Your task to perform on an android device: turn off picture-in-picture Image 0: 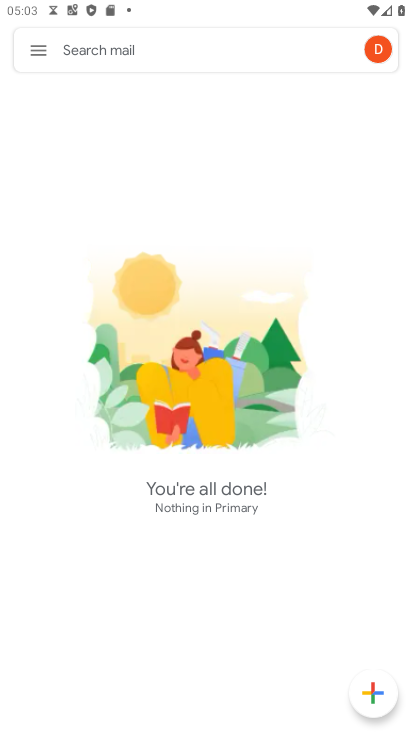
Step 0: press home button
Your task to perform on an android device: turn off picture-in-picture Image 1: 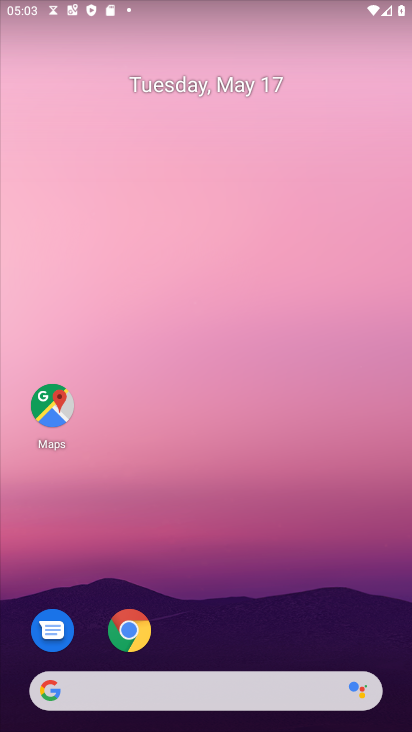
Step 1: click (113, 638)
Your task to perform on an android device: turn off picture-in-picture Image 2: 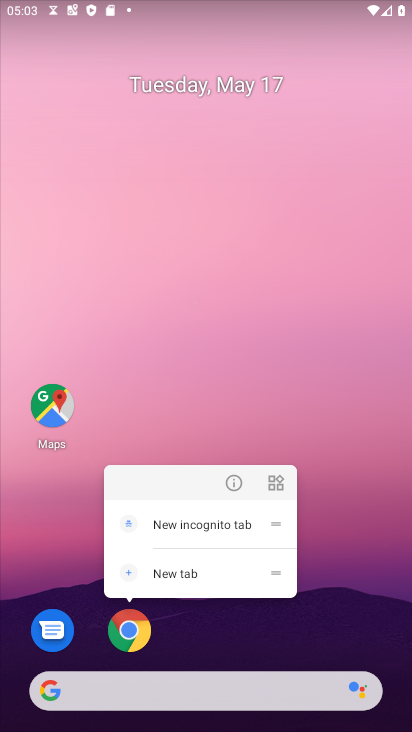
Step 2: click (238, 480)
Your task to perform on an android device: turn off picture-in-picture Image 3: 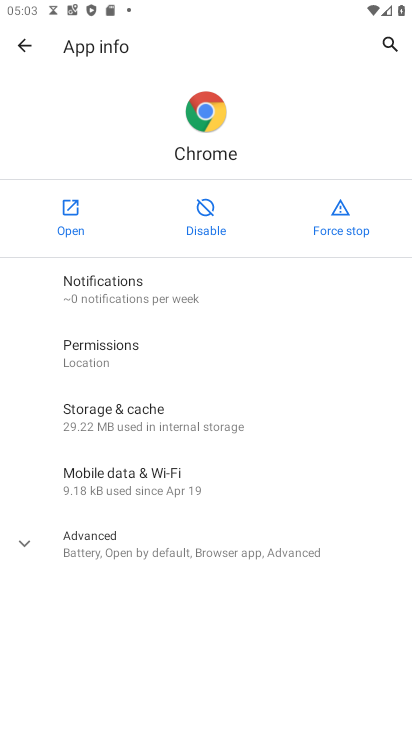
Step 3: click (180, 556)
Your task to perform on an android device: turn off picture-in-picture Image 4: 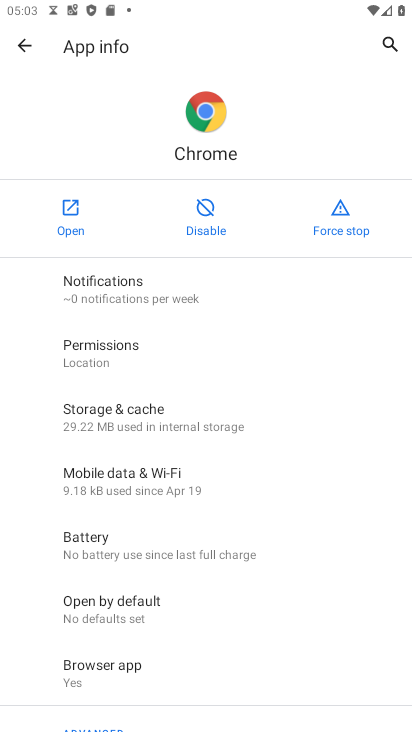
Step 4: drag from (193, 671) to (140, 531)
Your task to perform on an android device: turn off picture-in-picture Image 5: 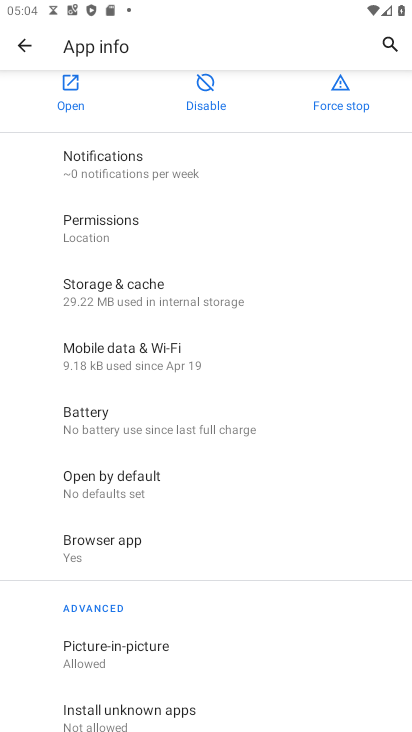
Step 5: click (89, 642)
Your task to perform on an android device: turn off picture-in-picture Image 6: 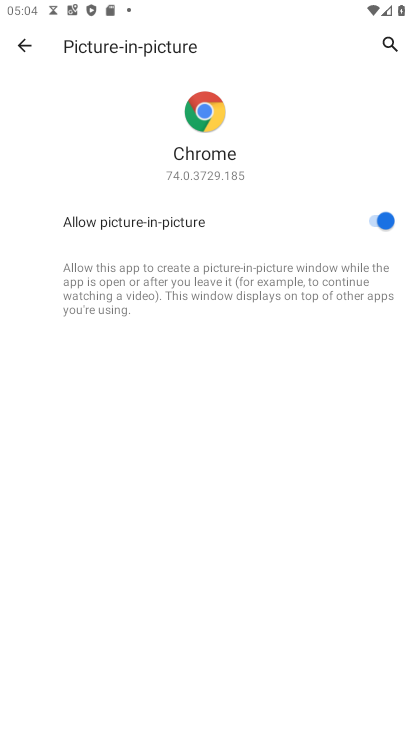
Step 6: click (389, 217)
Your task to perform on an android device: turn off picture-in-picture Image 7: 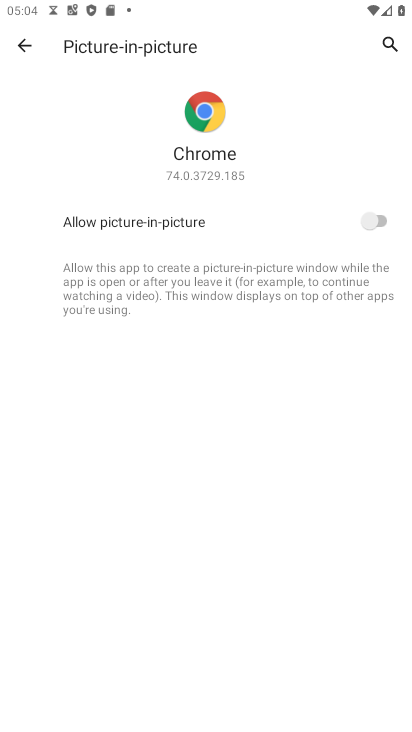
Step 7: task complete